Your task to perform on an android device: Go to internet settings Image 0: 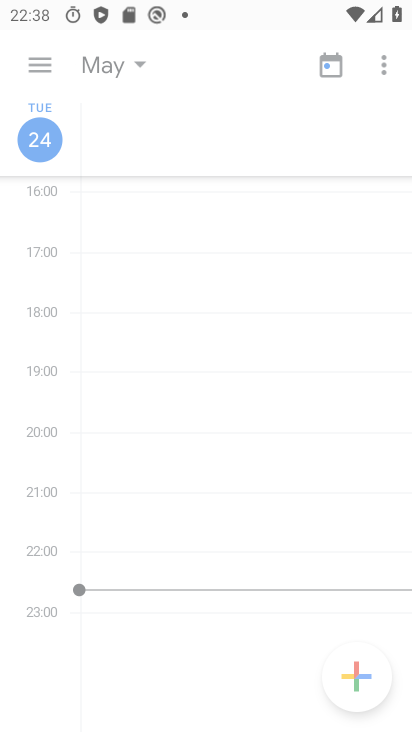
Step 0: press back button
Your task to perform on an android device: Go to internet settings Image 1: 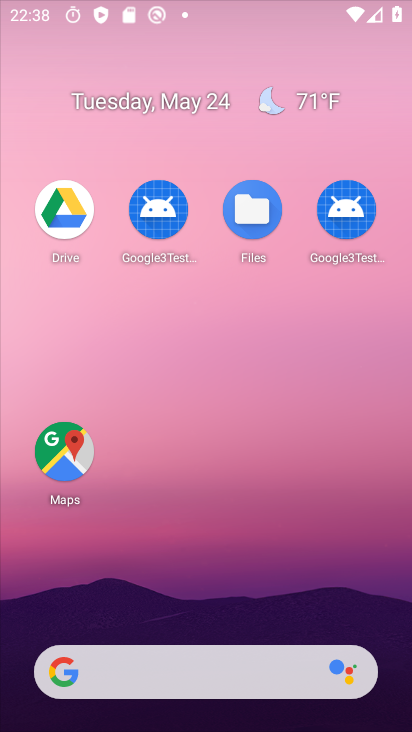
Step 1: press home button
Your task to perform on an android device: Go to internet settings Image 2: 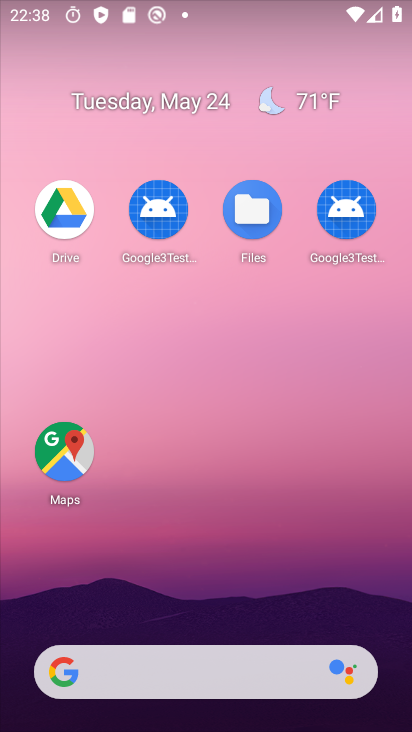
Step 2: drag from (196, 628) to (266, 9)
Your task to perform on an android device: Go to internet settings Image 3: 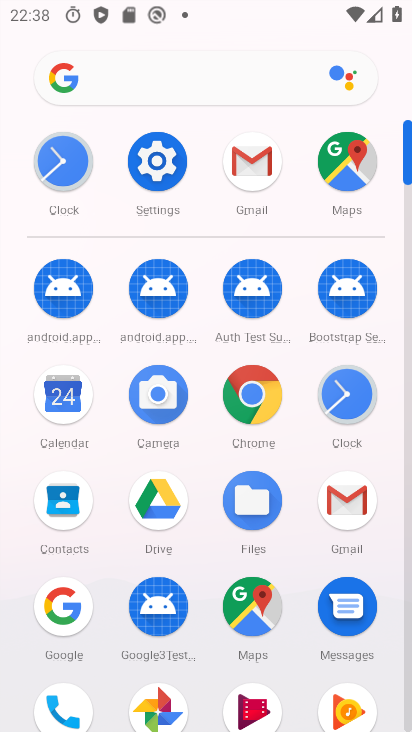
Step 3: click (162, 159)
Your task to perform on an android device: Go to internet settings Image 4: 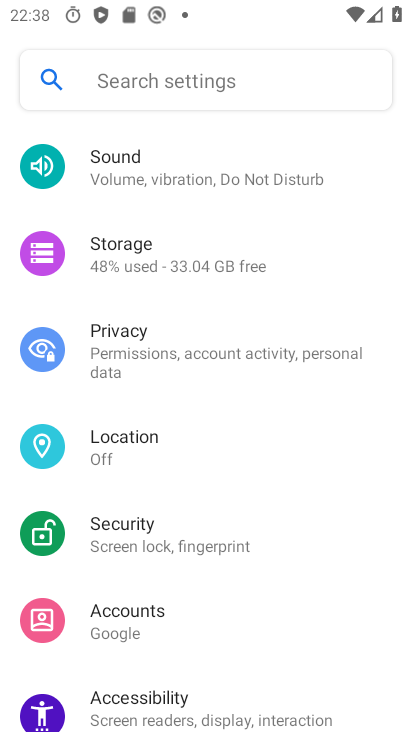
Step 4: drag from (162, 159) to (96, 473)
Your task to perform on an android device: Go to internet settings Image 5: 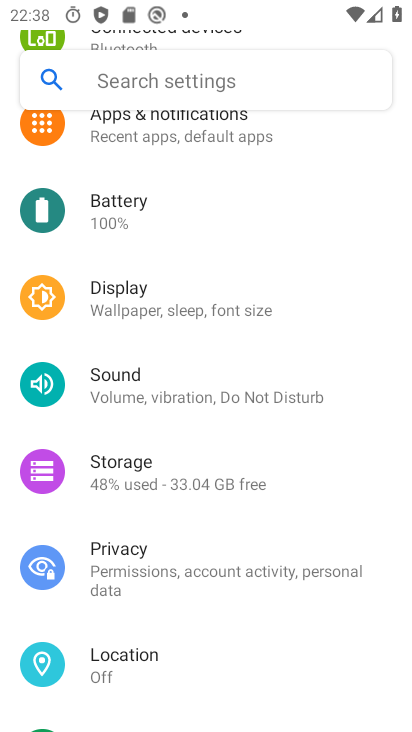
Step 5: drag from (291, 279) to (213, 683)
Your task to perform on an android device: Go to internet settings Image 6: 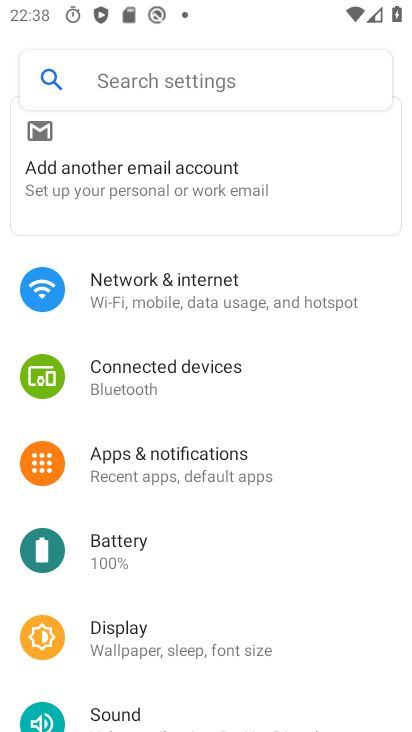
Step 6: click (184, 306)
Your task to perform on an android device: Go to internet settings Image 7: 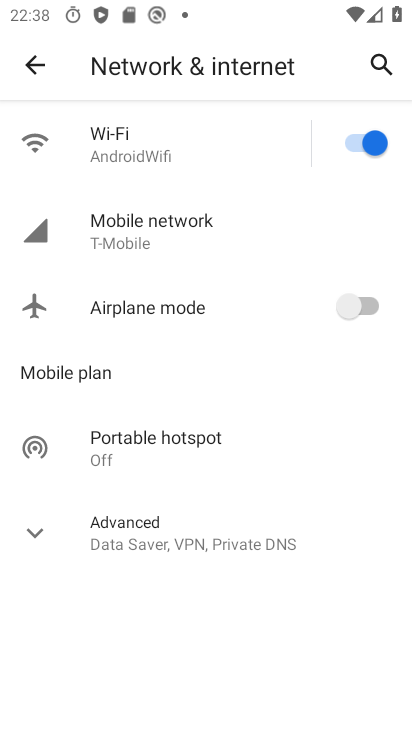
Step 7: click (178, 208)
Your task to perform on an android device: Go to internet settings Image 8: 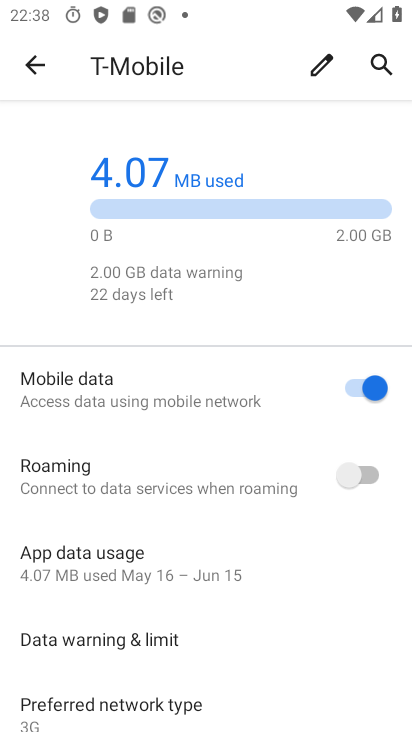
Step 8: task complete